Your task to perform on an android device: Show me recent news Image 0: 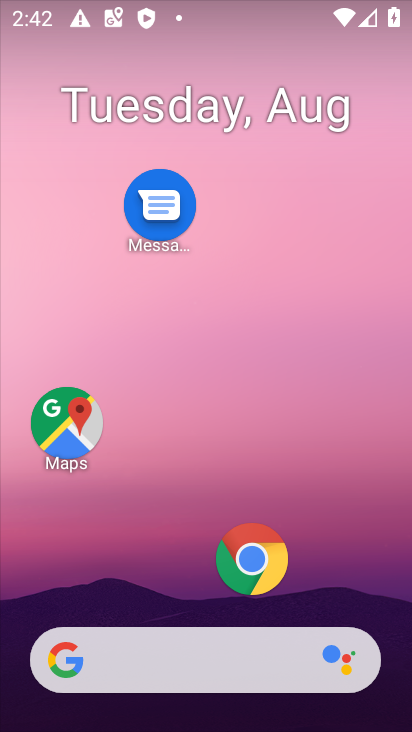
Step 0: click (164, 653)
Your task to perform on an android device: Show me recent news Image 1: 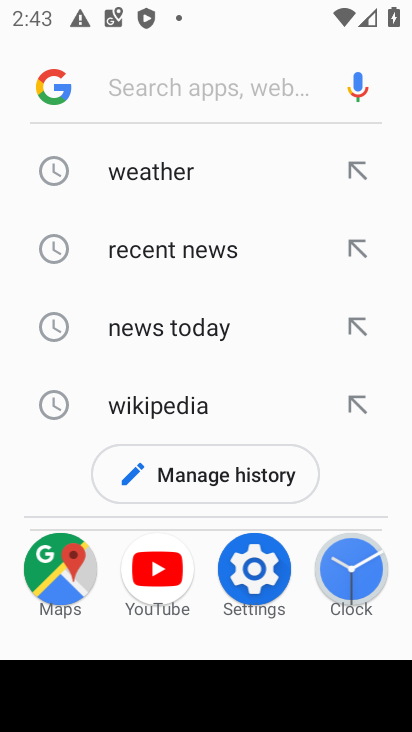
Step 1: click (145, 246)
Your task to perform on an android device: Show me recent news Image 2: 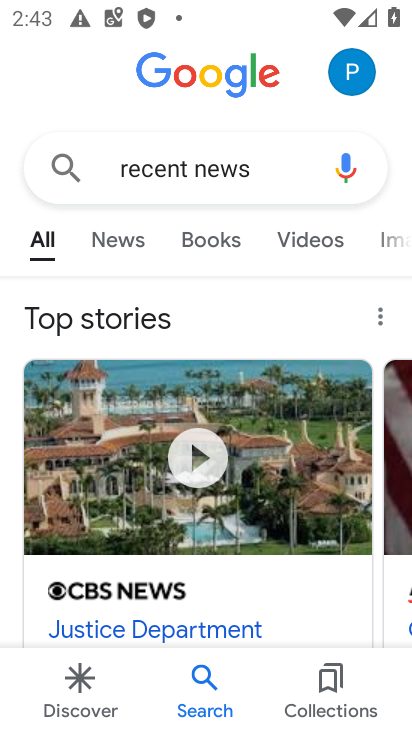
Step 2: drag from (313, 592) to (302, 178)
Your task to perform on an android device: Show me recent news Image 3: 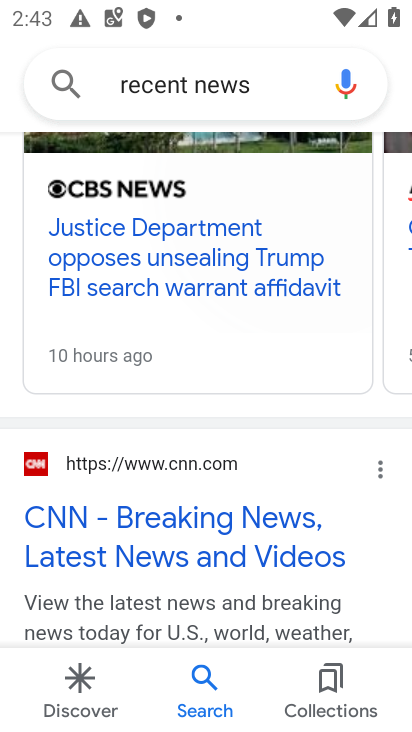
Step 3: drag from (263, 587) to (256, 432)
Your task to perform on an android device: Show me recent news Image 4: 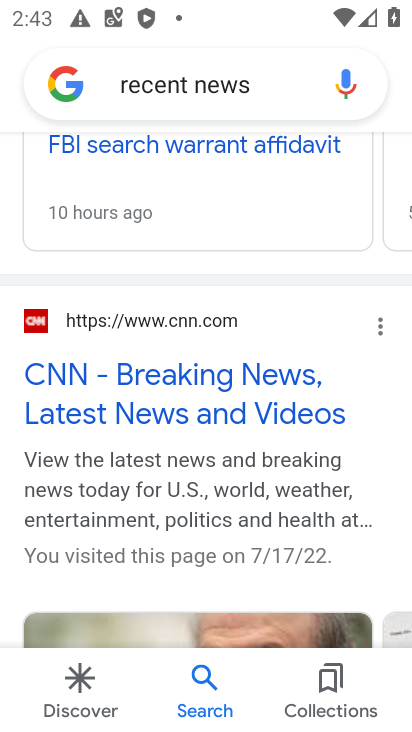
Step 4: click (136, 385)
Your task to perform on an android device: Show me recent news Image 5: 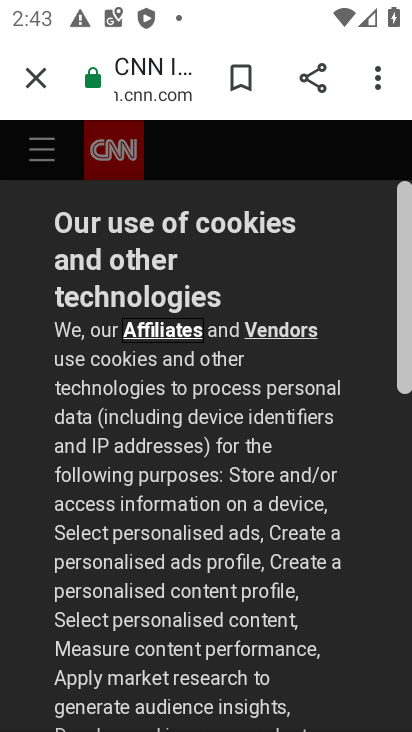
Step 5: drag from (306, 589) to (304, 257)
Your task to perform on an android device: Show me recent news Image 6: 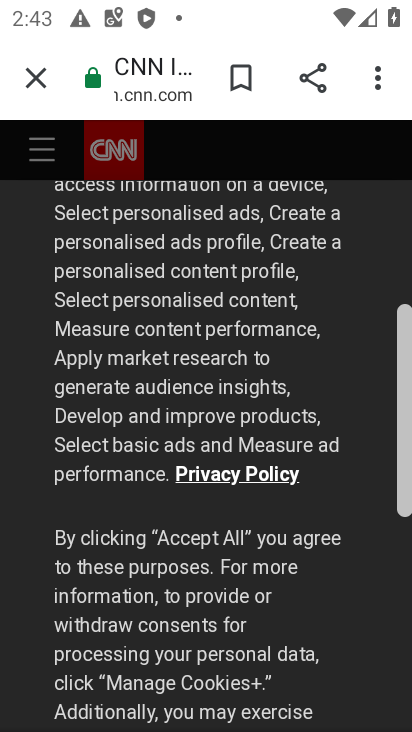
Step 6: drag from (331, 648) to (318, 394)
Your task to perform on an android device: Show me recent news Image 7: 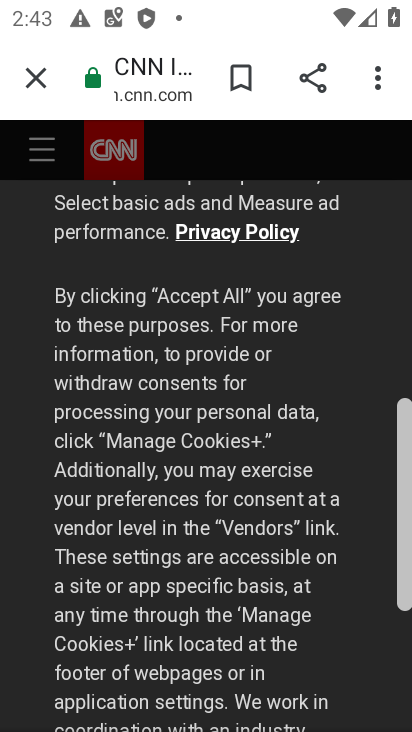
Step 7: drag from (319, 667) to (287, 322)
Your task to perform on an android device: Show me recent news Image 8: 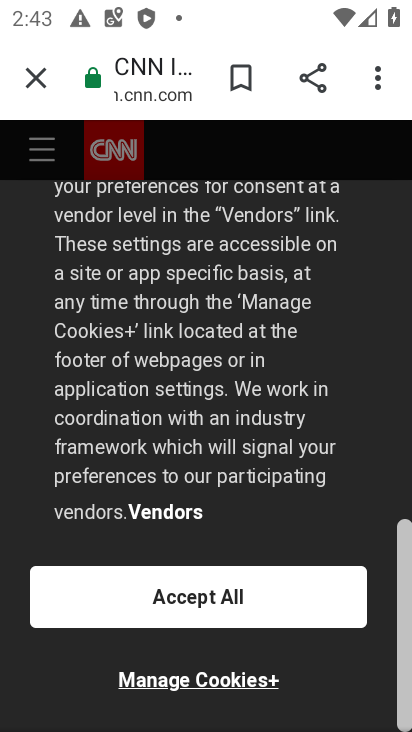
Step 8: click (206, 592)
Your task to perform on an android device: Show me recent news Image 9: 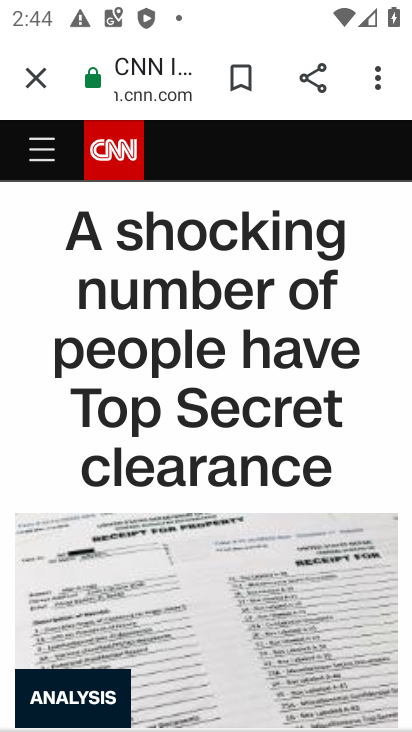
Step 9: task complete